Your task to perform on an android device: turn off location Image 0: 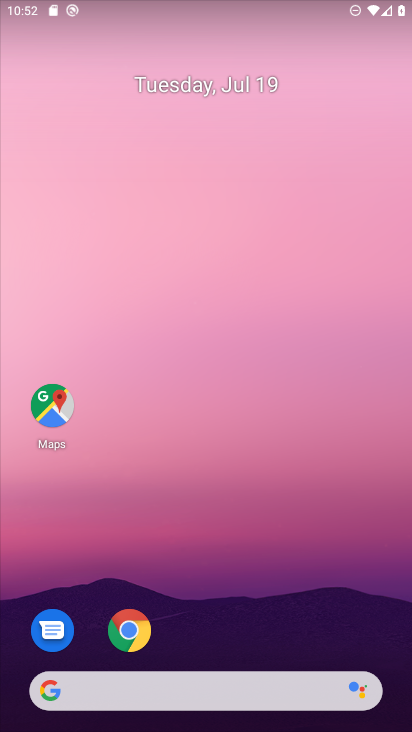
Step 0: drag from (213, 694) to (213, 125)
Your task to perform on an android device: turn off location Image 1: 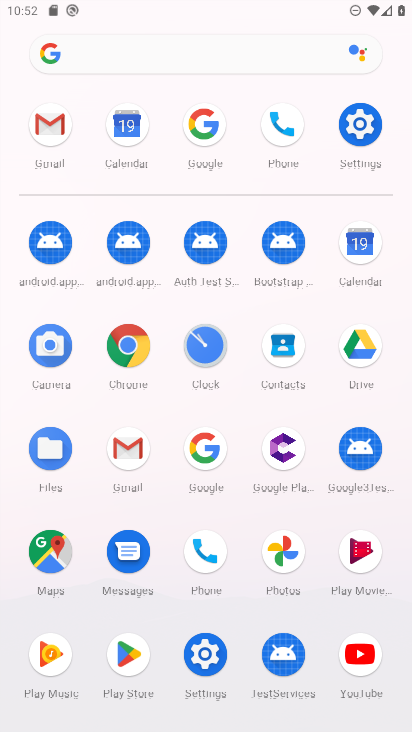
Step 1: click (358, 125)
Your task to perform on an android device: turn off location Image 2: 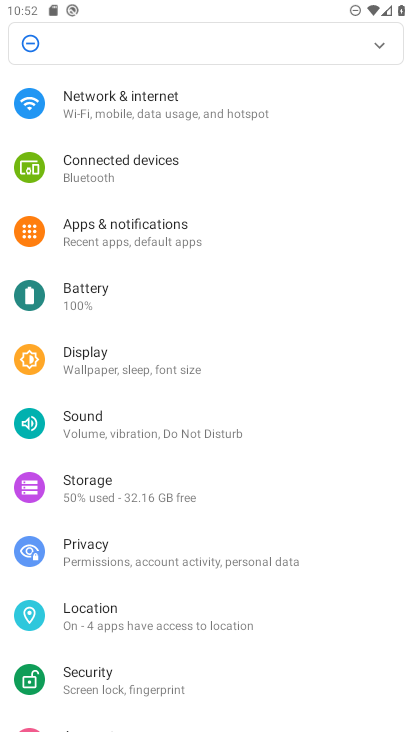
Step 2: click (154, 622)
Your task to perform on an android device: turn off location Image 3: 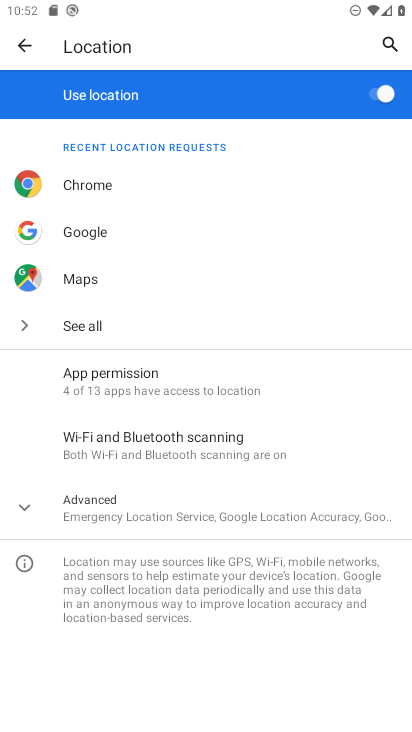
Step 3: click (374, 90)
Your task to perform on an android device: turn off location Image 4: 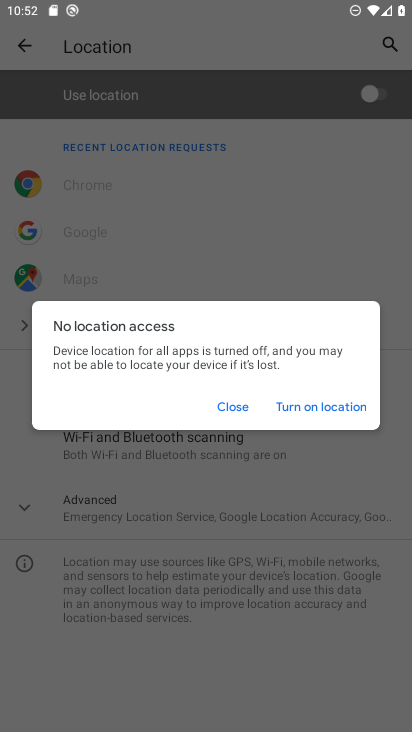
Step 4: click (229, 408)
Your task to perform on an android device: turn off location Image 5: 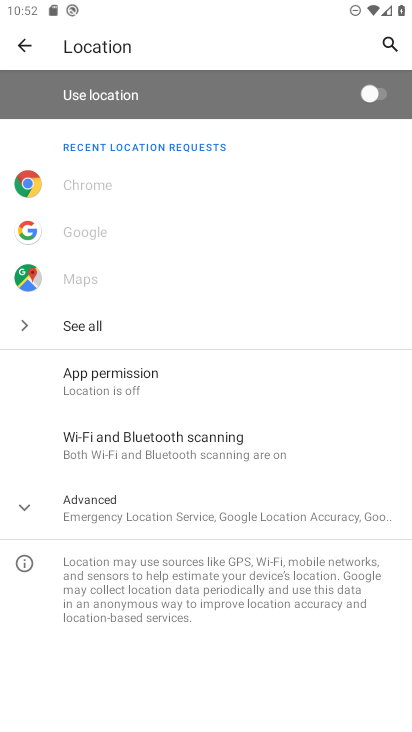
Step 5: task complete